Your task to perform on an android device: Open the calendar and show me this week's events Image 0: 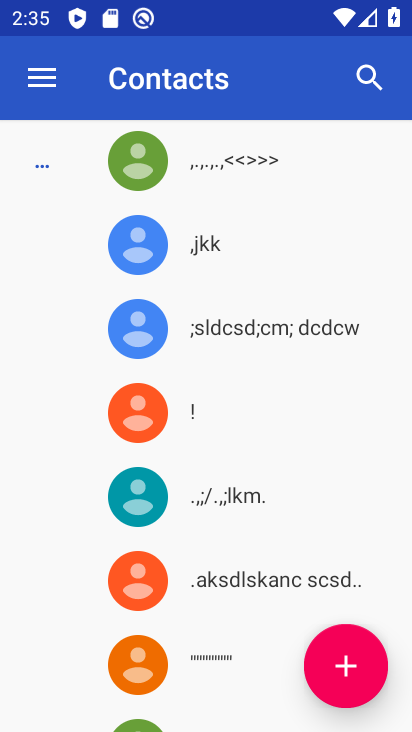
Step 0: press home button
Your task to perform on an android device: Open the calendar and show me this week's events Image 1: 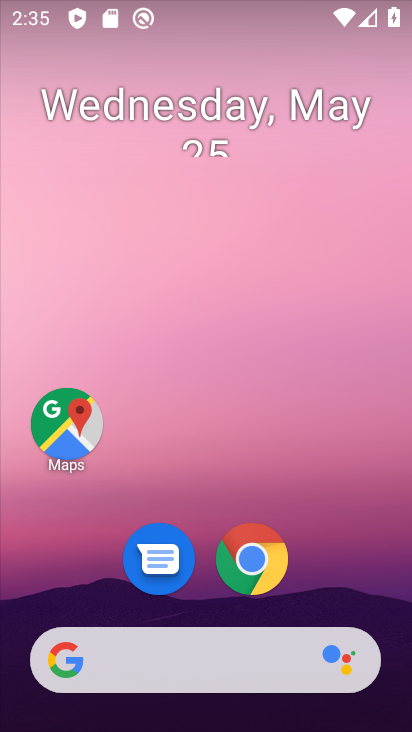
Step 1: drag from (207, 606) to (243, 184)
Your task to perform on an android device: Open the calendar and show me this week's events Image 2: 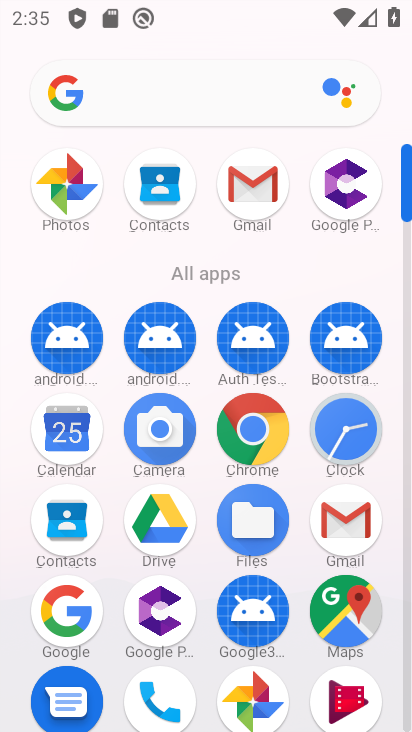
Step 2: click (62, 427)
Your task to perform on an android device: Open the calendar and show me this week's events Image 3: 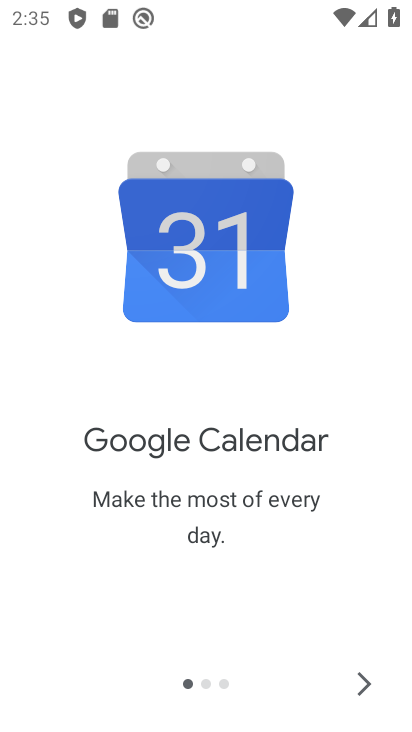
Step 3: click (357, 674)
Your task to perform on an android device: Open the calendar and show me this week's events Image 4: 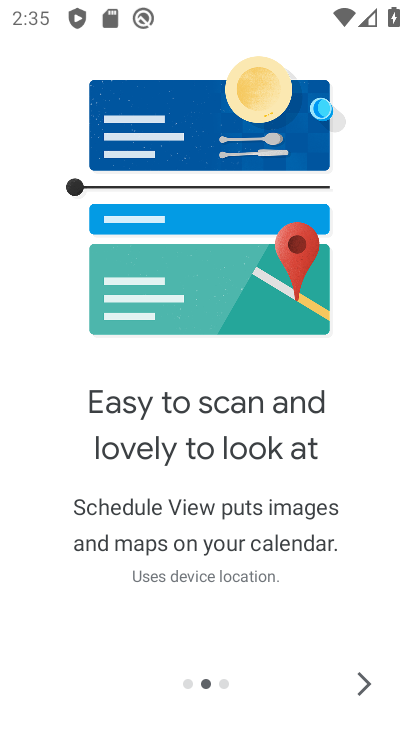
Step 4: click (357, 674)
Your task to perform on an android device: Open the calendar and show me this week's events Image 5: 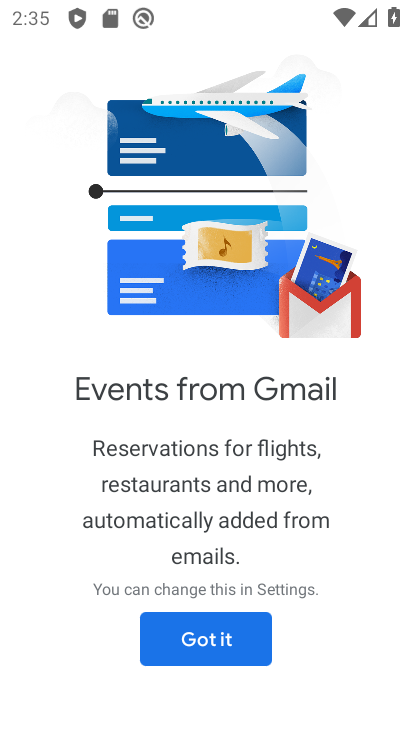
Step 5: click (208, 643)
Your task to perform on an android device: Open the calendar and show me this week's events Image 6: 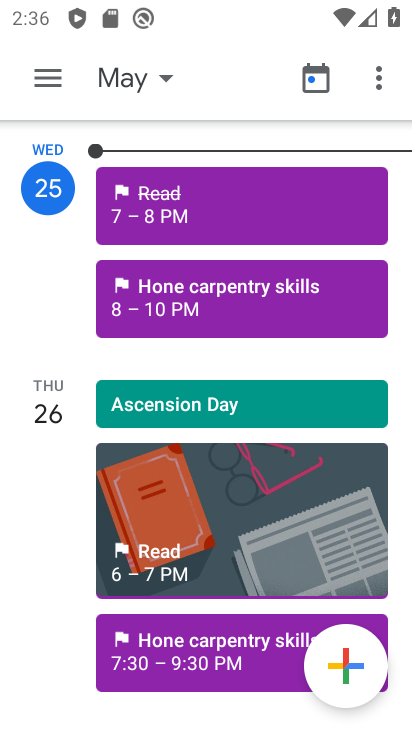
Step 6: click (48, 67)
Your task to perform on an android device: Open the calendar and show me this week's events Image 7: 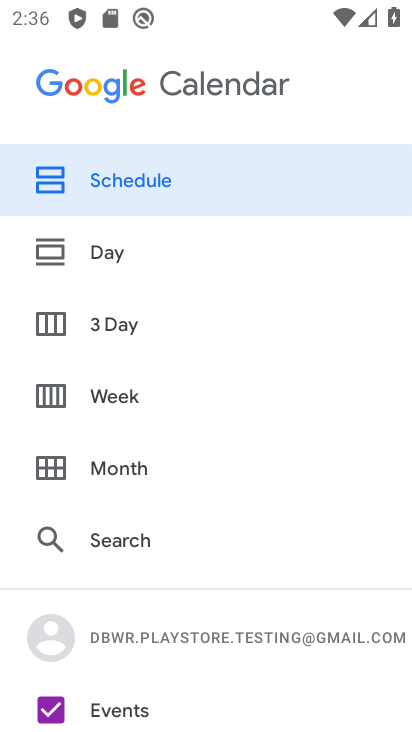
Step 7: drag from (112, 578) to (117, 111)
Your task to perform on an android device: Open the calendar and show me this week's events Image 8: 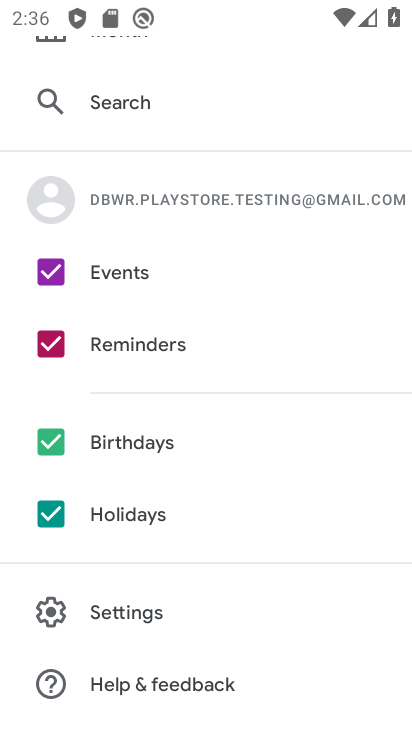
Step 8: click (51, 509)
Your task to perform on an android device: Open the calendar and show me this week's events Image 9: 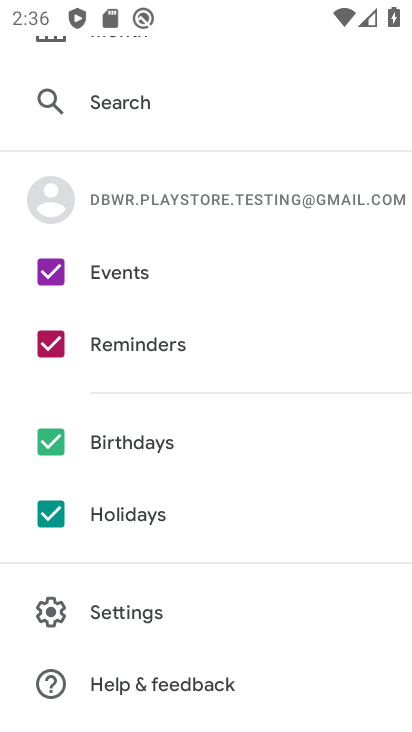
Step 9: click (50, 434)
Your task to perform on an android device: Open the calendar and show me this week's events Image 10: 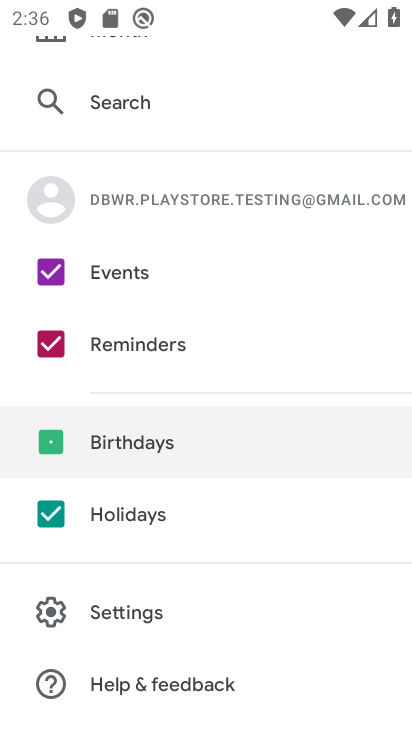
Step 10: click (46, 337)
Your task to perform on an android device: Open the calendar and show me this week's events Image 11: 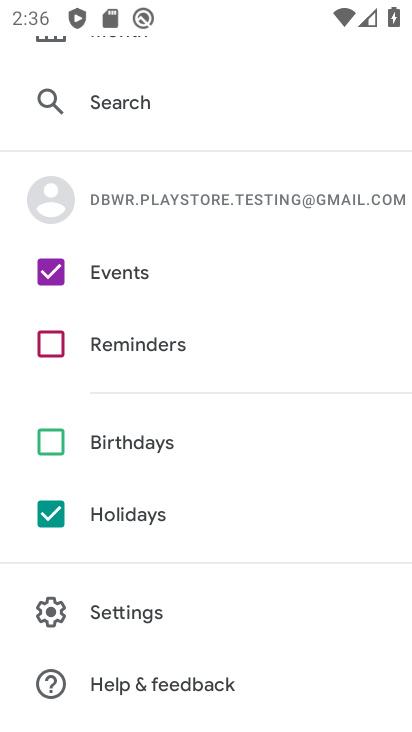
Step 11: click (50, 513)
Your task to perform on an android device: Open the calendar and show me this week's events Image 12: 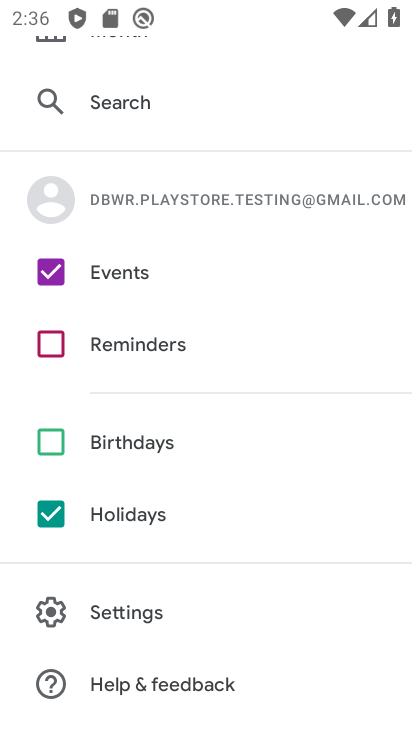
Step 12: drag from (131, 143) to (148, 632)
Your task to perform on an android device: Open the calendar and show me this week's events Image 13: 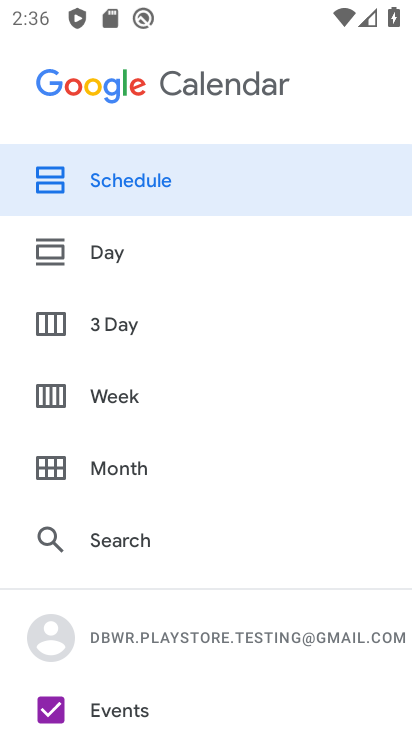
Step 13: click (80, 181)
Your task to perform on an android device: Open the calendar and show me this week's events Image 14: 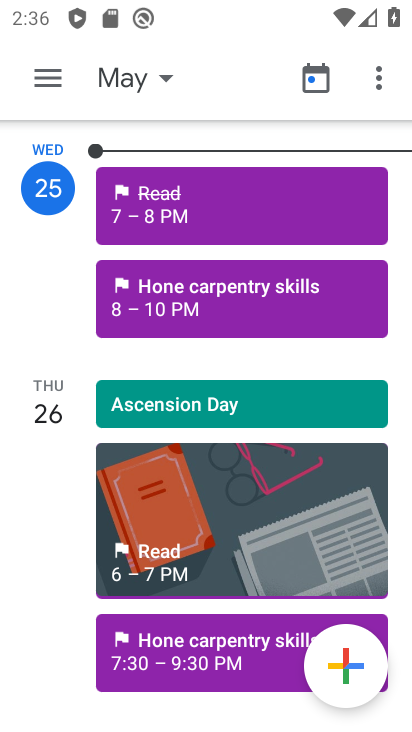
Step 14: task complete